Your task to perform on an android device: Open sound settings Image 0: 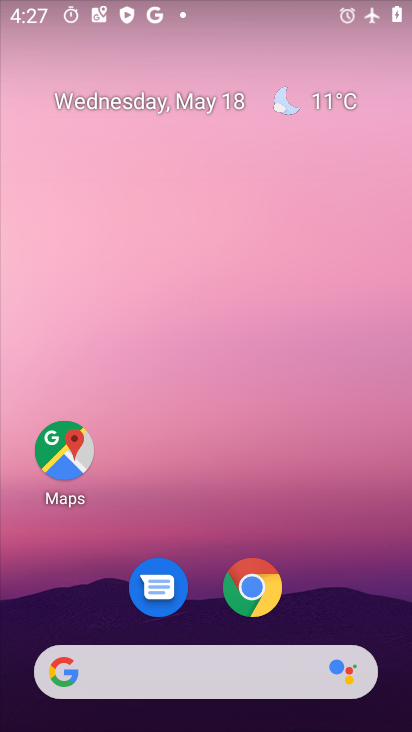
Step 0: drag from (188, 560) to (243, 252)
Your task to perform on an android device: Open sound settings Image 1: 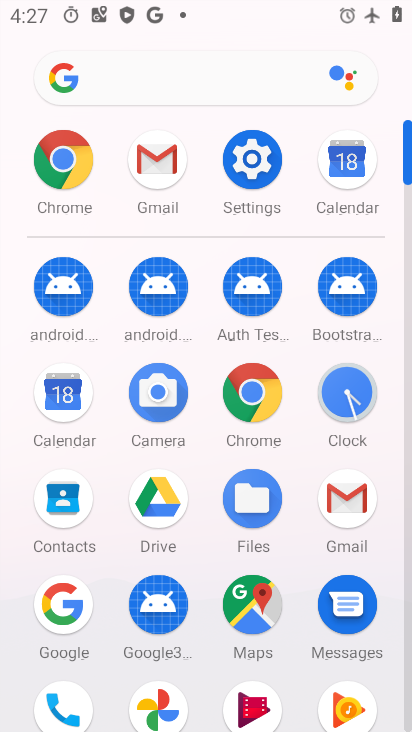
Step 1: click (251, 188)
Your task to perform on an android device: Open sound settings Image 2: 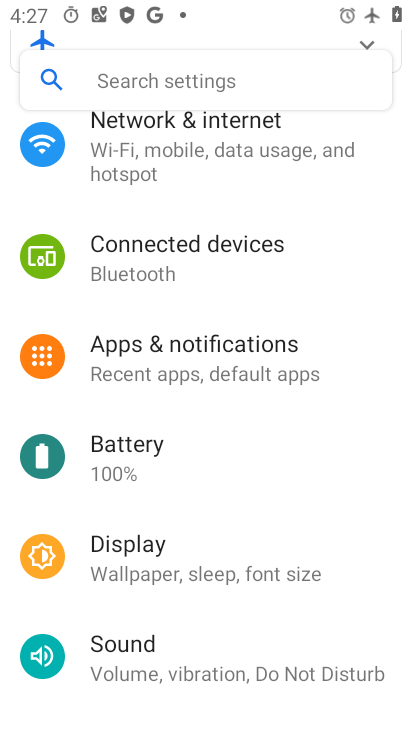
Step 2: click (196, 673)
Your task to perform on an android device: Open sound settings Image 3: 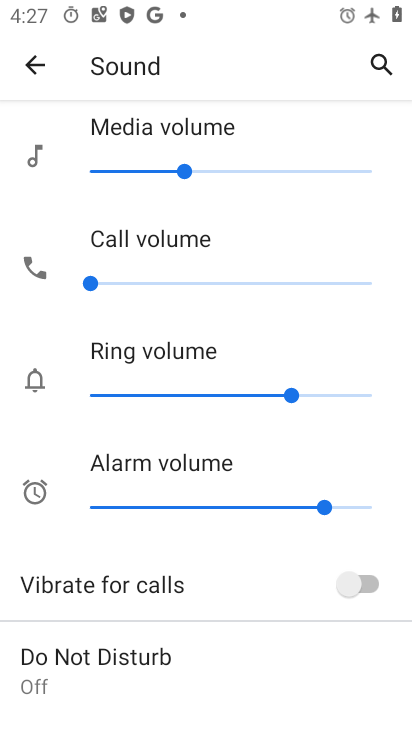
Step 3: task complete